Your task to perform on an android device: Is it going to rain this weekend? Image 0: 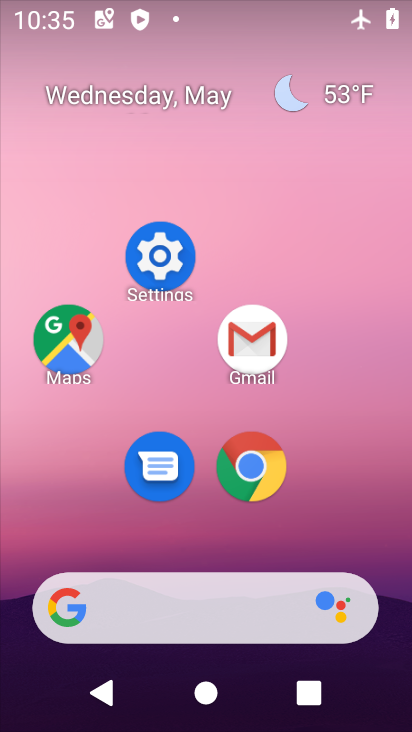
Step 0: drag from (200, 535) to (234, 270)
Your task to perform on an android device: Is it going to rain this weekend? Image 1: 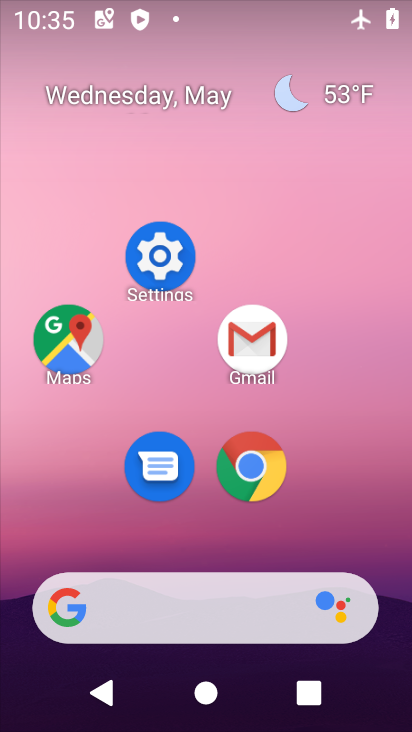
Step 1: drag from (190, 539) to (216, 272)
Your task to perform on an android device: Is it going to rain this weekend? Image 2: 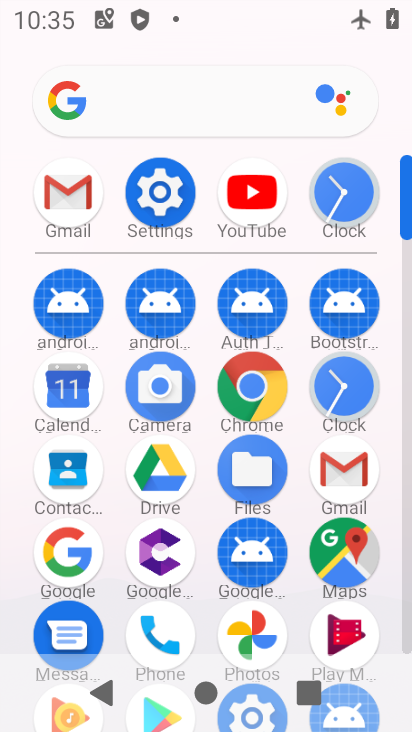
Step 2: click (206, 109)
Your task to perform on an android device: Is it going to rain this weekend? Image 3: 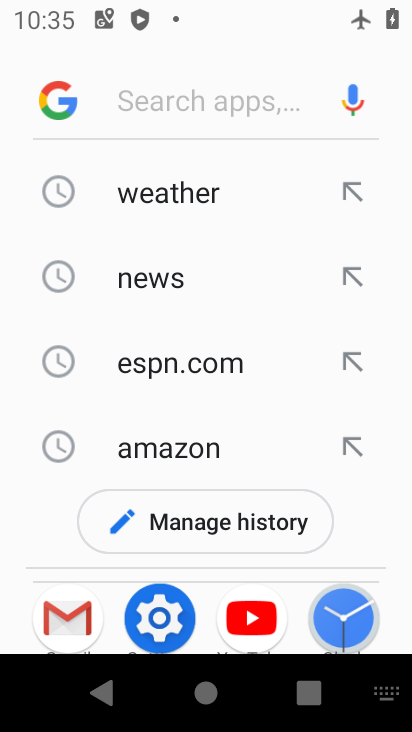
Step 3: type "rain weekend"
Your task to perform on an android device: Is it going to rain this weekend? Image 4: 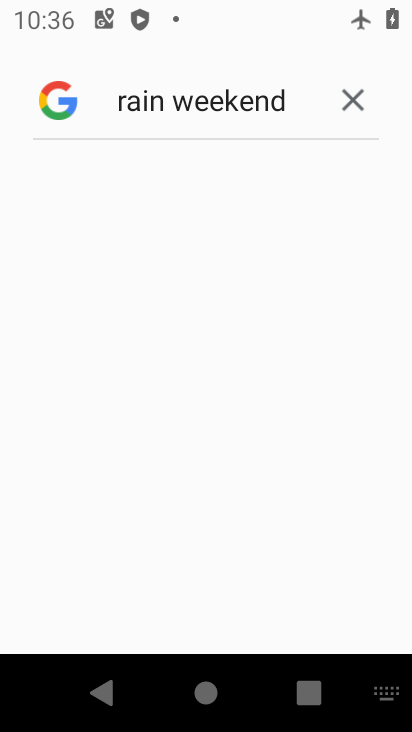
Step 4: task complete